Your task to perform on an android device: change the clock display to digital Image 0: 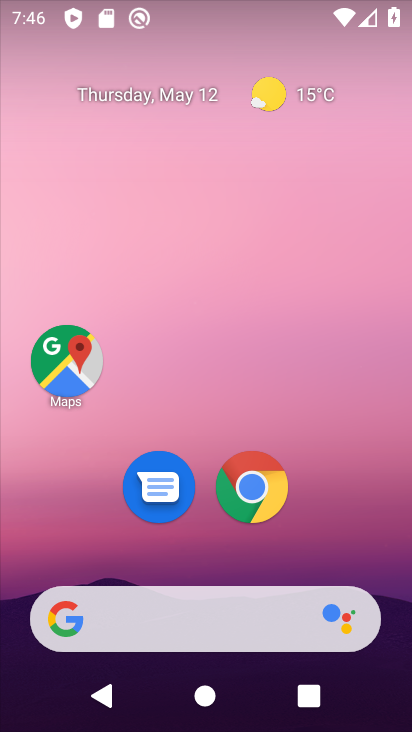
Step 0: drag from (379, 300) to (227, 21)
Your task to perform on an android device: change the clock display to digital Image 1: 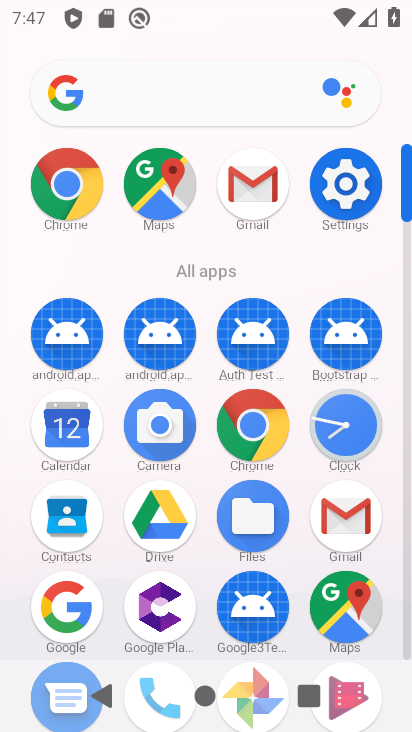
Step 1: click (362, 429)
Your task to perform on an android device: change the clock display to digital Image 2: 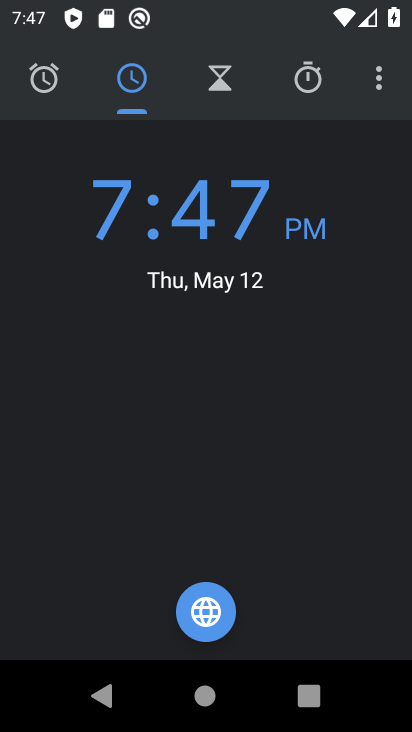
Step 2: click (384, 80)
Your task to perform on an android device: change the clock display to digital Image 3: 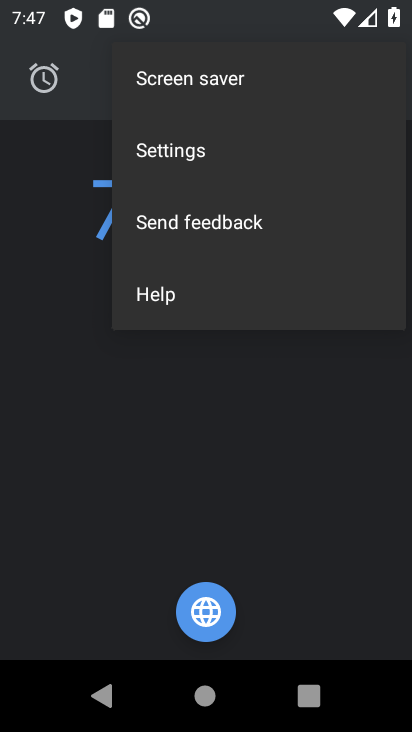
Step 3: click (191, 142)
Your task to perform on an android device: change the clock display to digital Image 4: 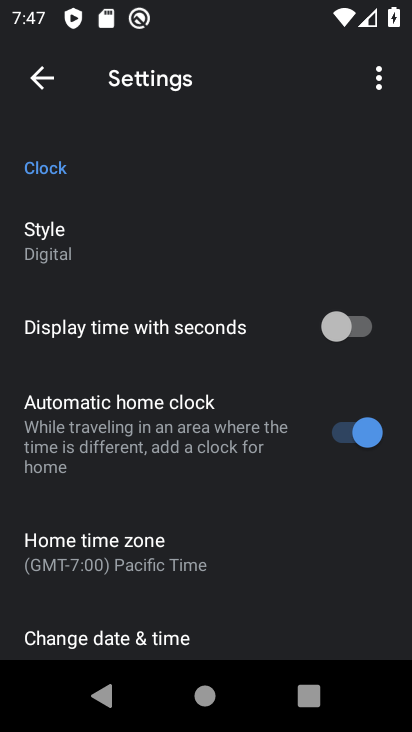
Step 4: click (77, 247)
Your task to perform on an android device: change the clock display to digital Image 5: 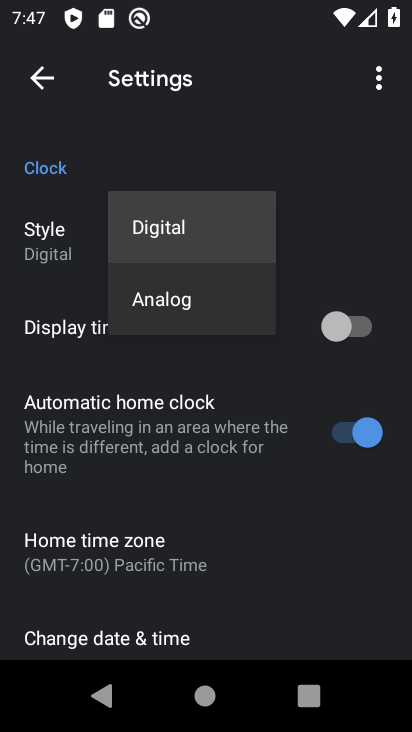
Step 5: task complete